Your task to perform on an android device: Search for good Thai restaurants Image 0: 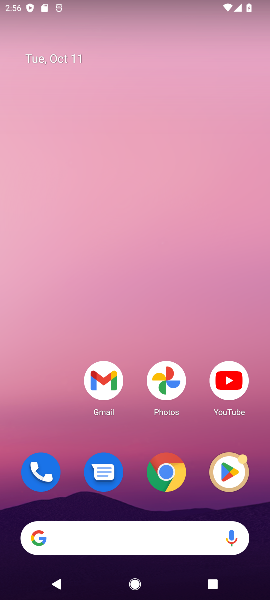
Step 0: click (151, 464)
Your task to perform on an android device: Search for good Thai restaurants Image 1: 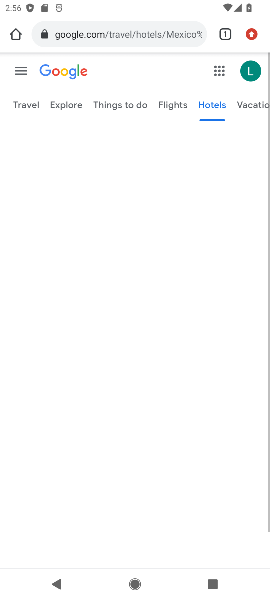
Step 1: click (90, 32)
Your task to perform on an android device: Search for good Thai restaurants Image 2: 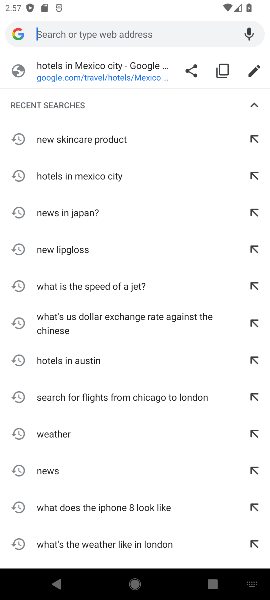
Step 2: type " good Thai restaurants"
Your task to perform on an android device: Search for good Thai restaurants Image 3: 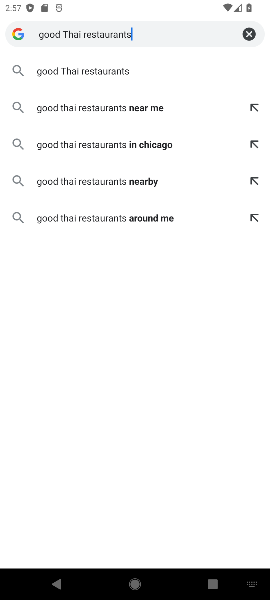
Step 3: click (153, 79)
Your task to perform on an android device: Search for good Thai restaurants Image 4: 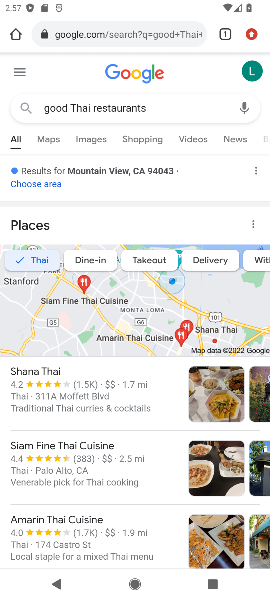
Step 4: drag from (112, 497) to (108, 221)
Your task to perform on an android device: Search for good Thai restaurants Image 5: 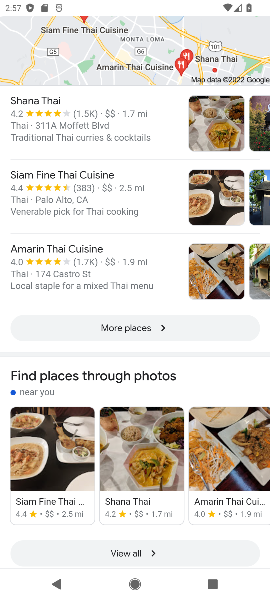
Step 5: click (153, 329)
Your task to perform on an android device: Search for good Thai restaurants Image 6: 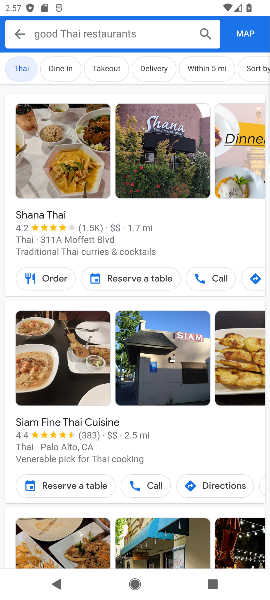
Step 6: task complete